Your task to perform on an android device: delete the emails in spam in the gmail app Image 0: 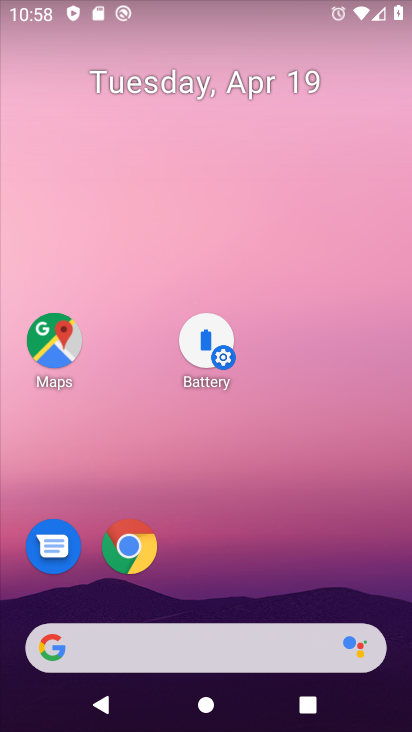
Step 0: drag from (247, 592) to (269, 39)
Your task to perform on an android device: delete the emails in spam in the gmail app Image 1: 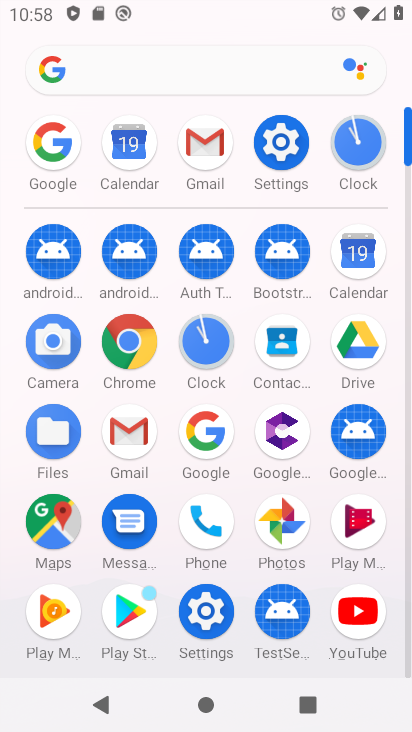
Step 1: click (128, 435)
Your task to perform on an android device: delete the emails in spam in the gmail app Image 2: 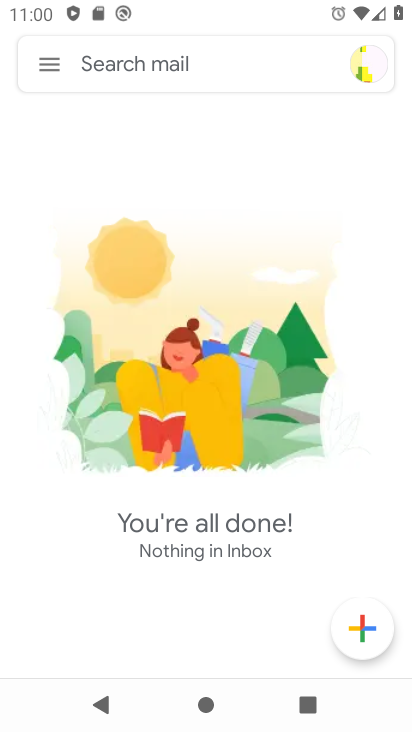
Step 2: click (55, 57)
Your task to perform on an android device: delete the emails in spam in the gmail app Image 3: 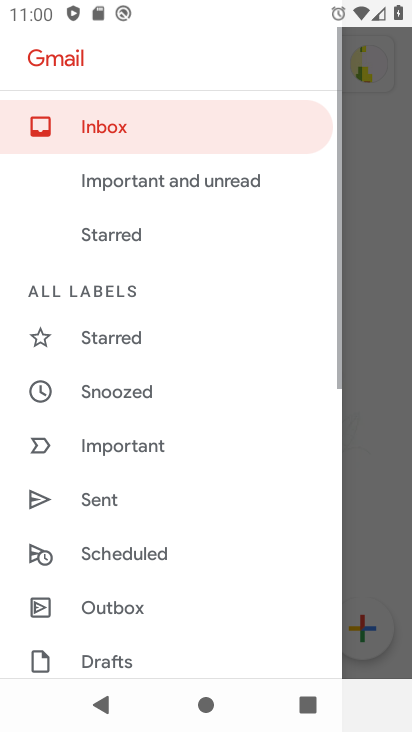
Step 3: drag from (173, 631) to (224, 153)
Your task to perform on an android device: delete the emails in spam in the gmail app Image 4: 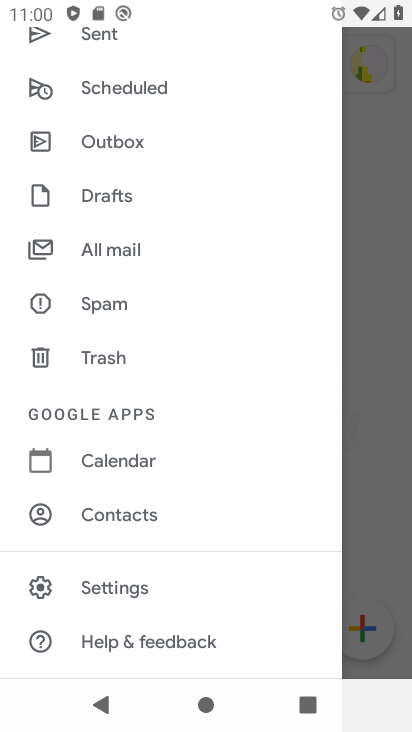
Step 4: click (99, 302)
Your task to perform on an android device: delete the emails in spam in the gmail app Image 5: 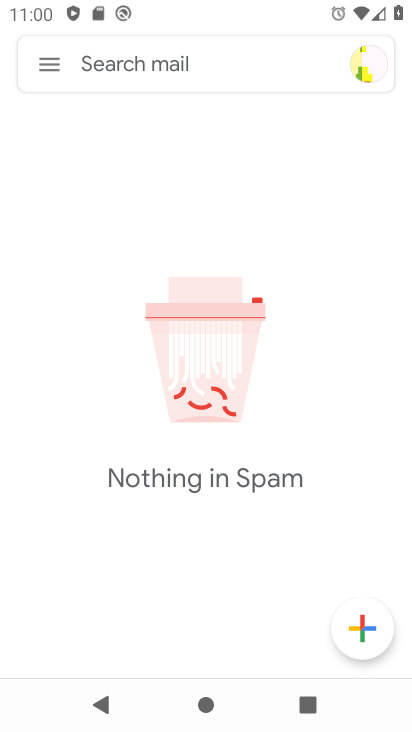
Step 5: task complete